Your task to perform on an android device: change the clock display to show seconds Image 0: 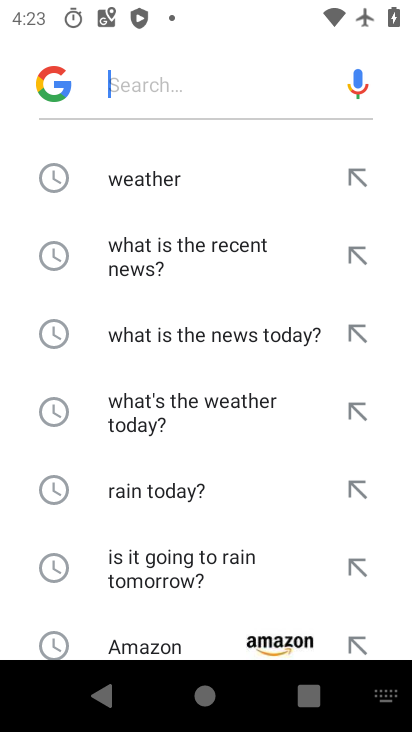
Step 0: press home button
Your task to perform on an android device: change the clock display to show seconds Image 1: 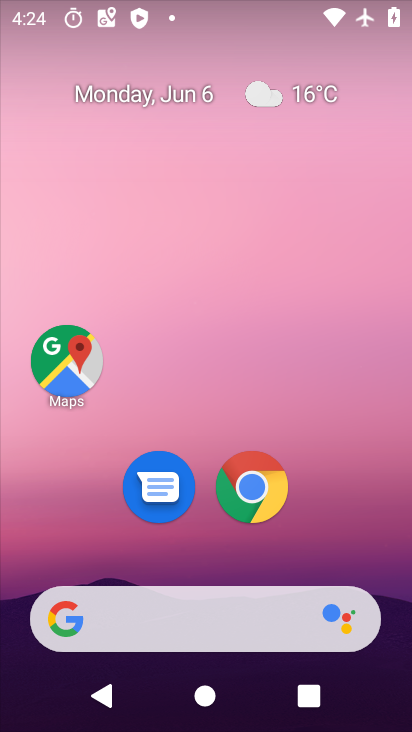
Step 1: drag from (346, 508) to (266, 161)
Your task to perform on an android device: change the clock display to show seconds Image 2: 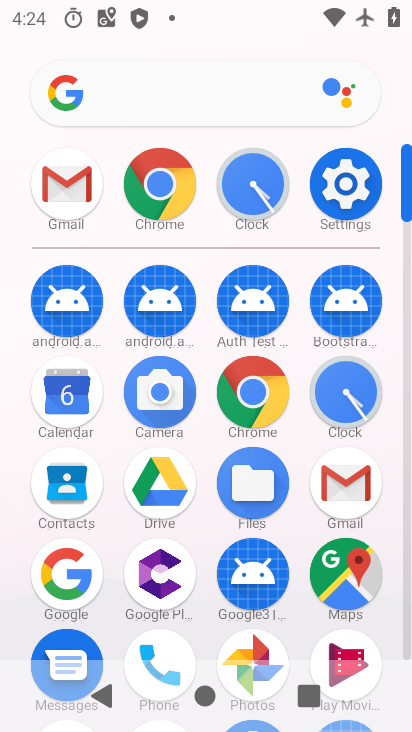
Step 2: click (344, 400)
Your task to perform on an android device: change the clock display to show seconds Image 3: 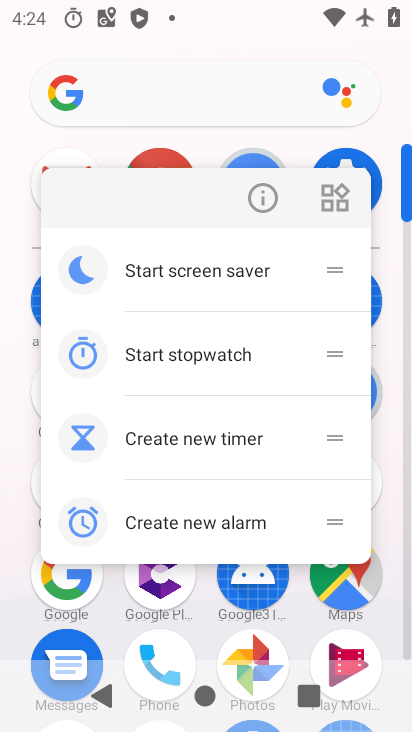
Step 3: click (380, 392)
Your task to perform on an android device: change the clock display to show seconds Image 4: 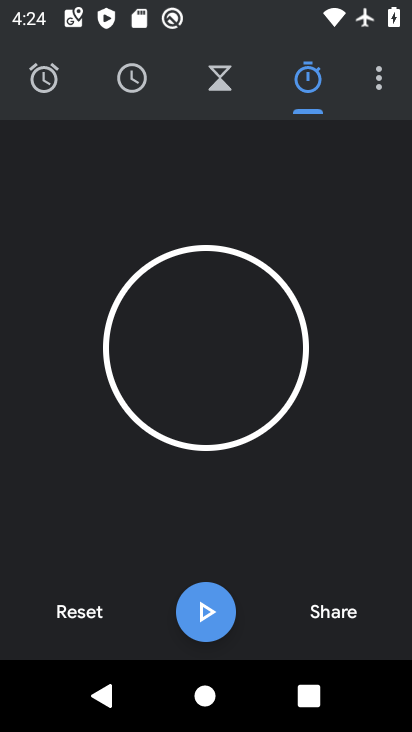
Step 4: task complete